Your task to perform on an android device: open app "Google Keep" (install if not already installed) Image 0: 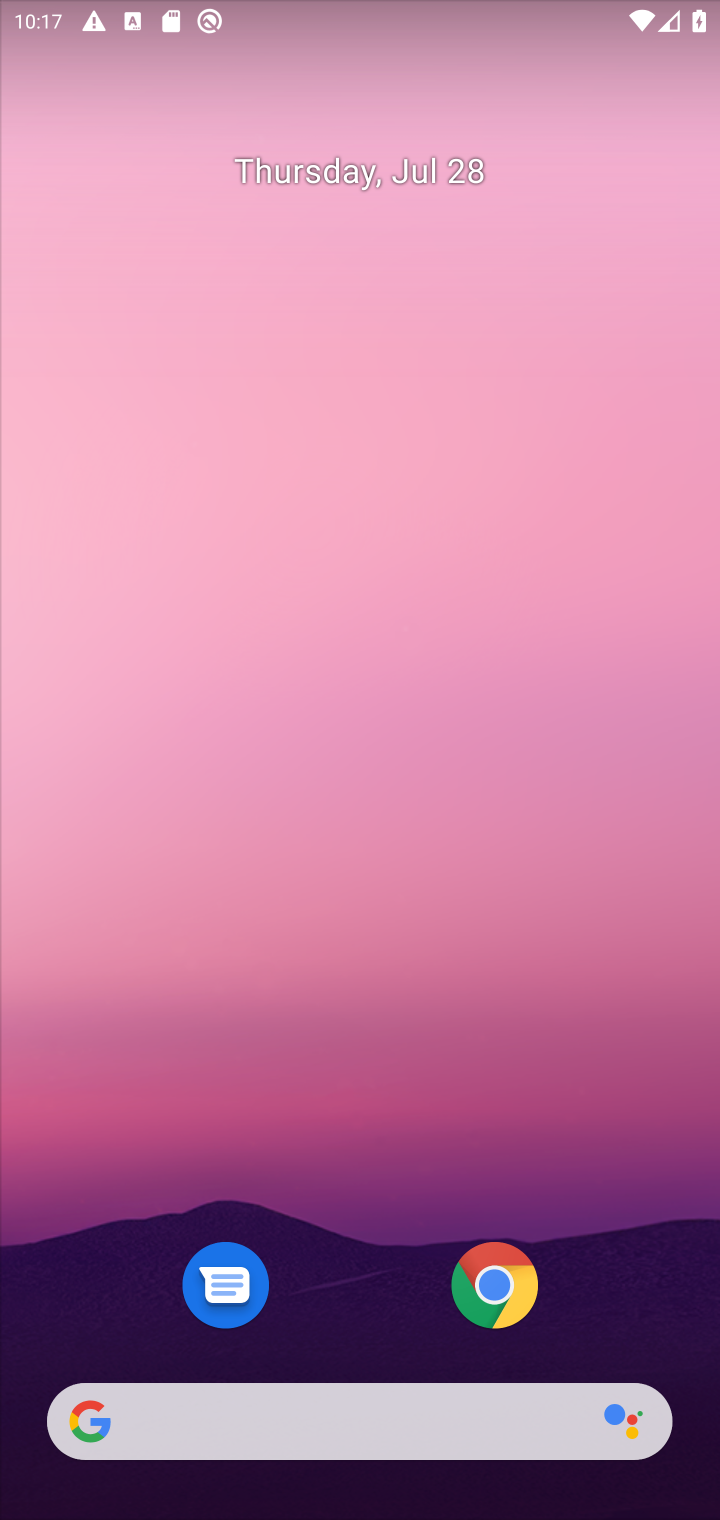
Step 0: drag from (273, 1424) to (453, 332)
Your task to perform on an android device: open app "Google Keep" (install if not already installed) Image 1: 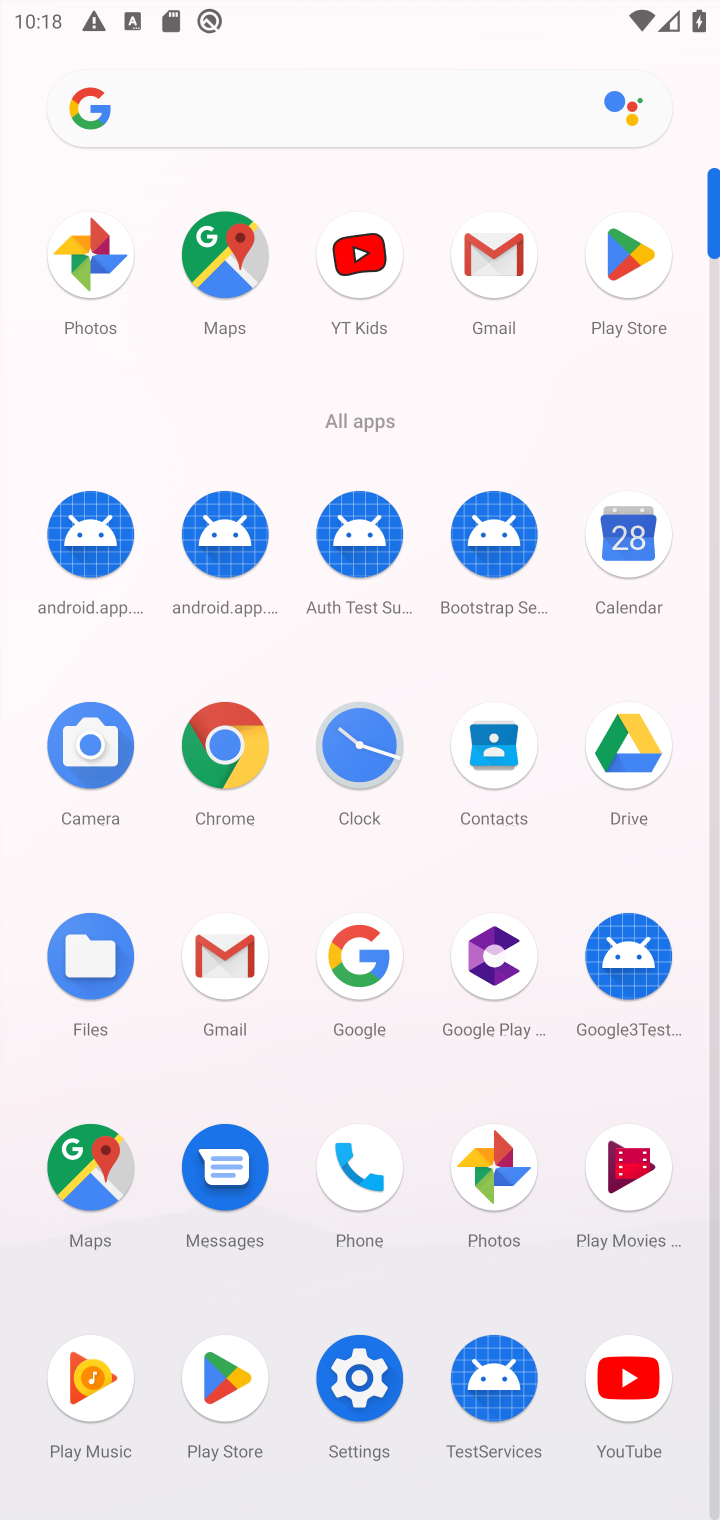
Step 1: click (631, 258)
Your task to perform on an android device: open app "Google Keep" (install if not already installed) Image 2: 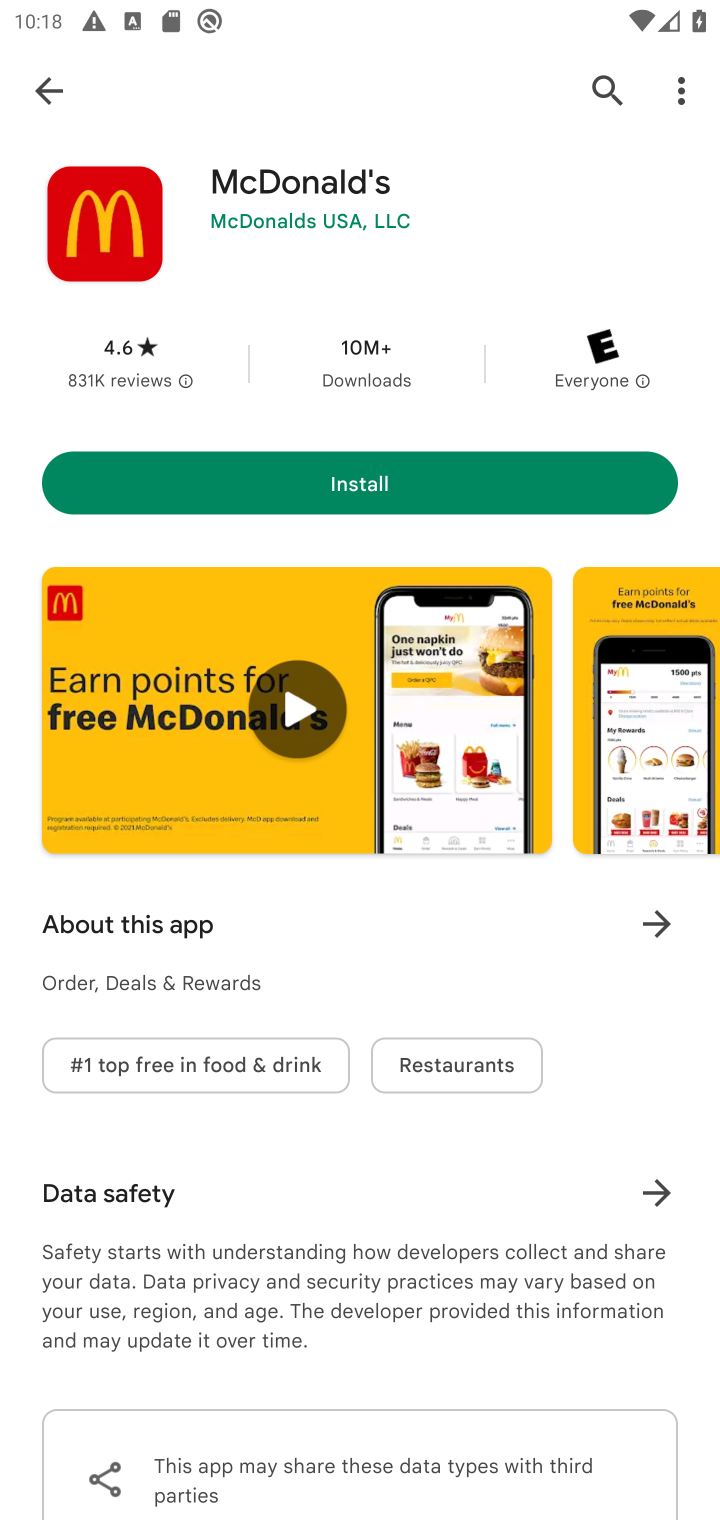
Step 2: click (602, 91)
Your task to perform on an android device: open app "Google Keep" (install if not already installed) Image 3: 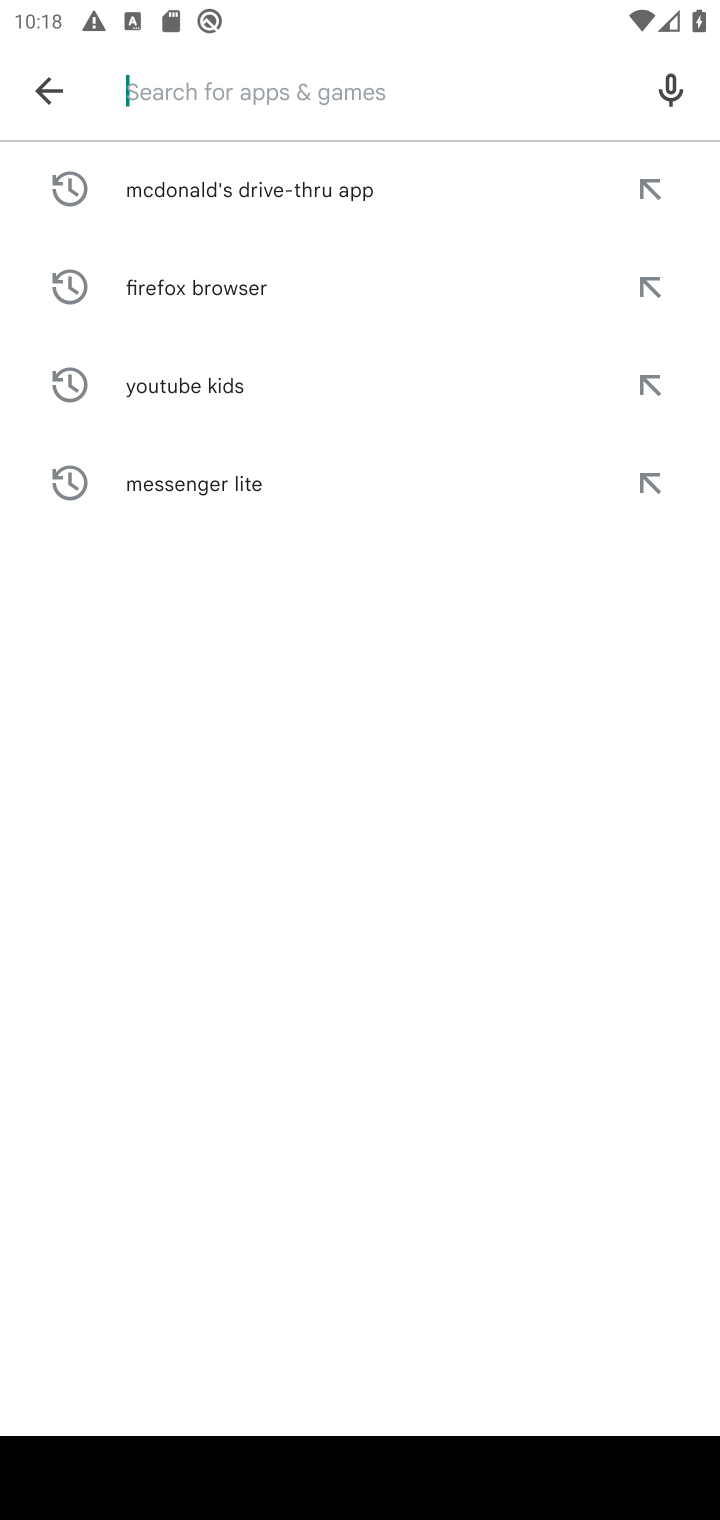
Step 3: type "Google Keep"
Your task to perform on an android device: open app "Google Keep" (install if not already installed) Image 4: 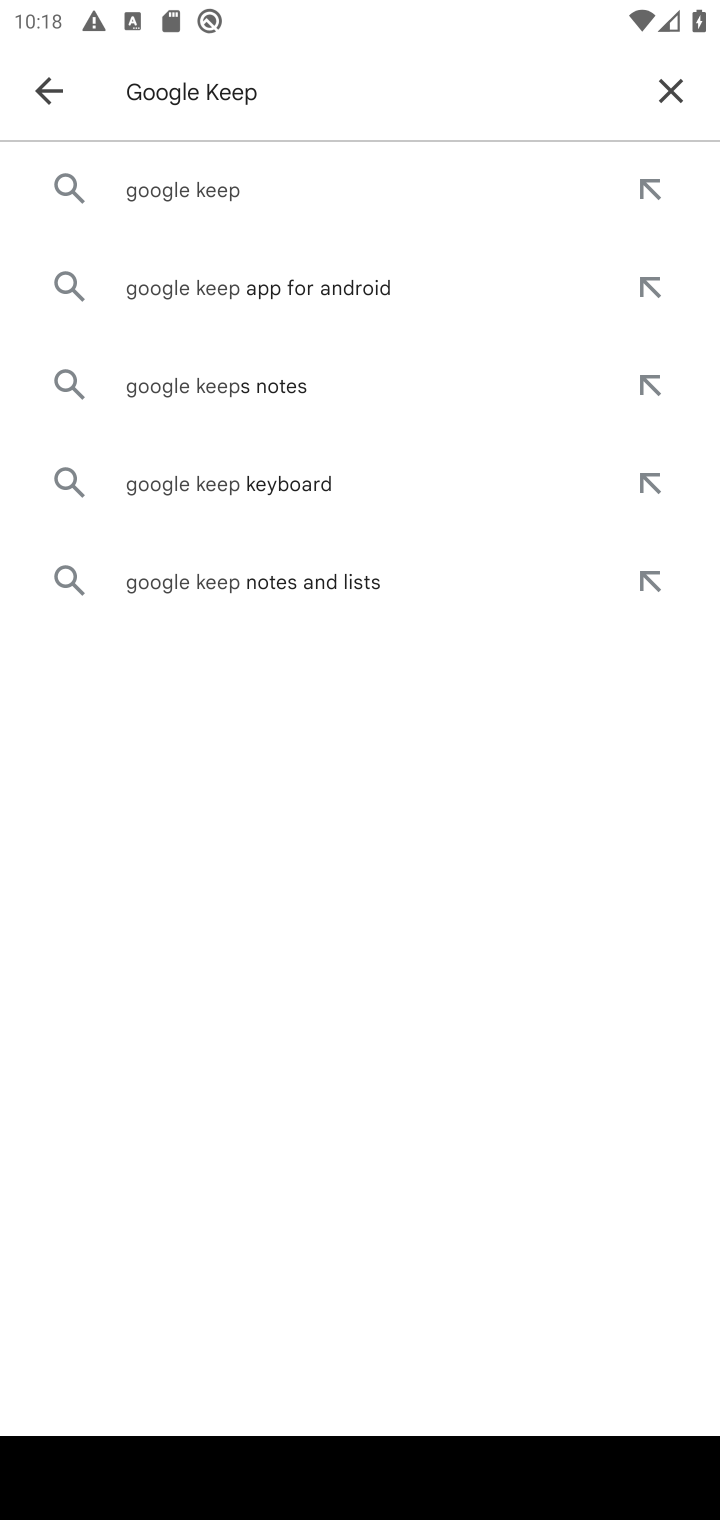
Step 4: click (231, 204)
Your task to perform on an android device: open app "Google Keep" (install if not already installed) Image 5: 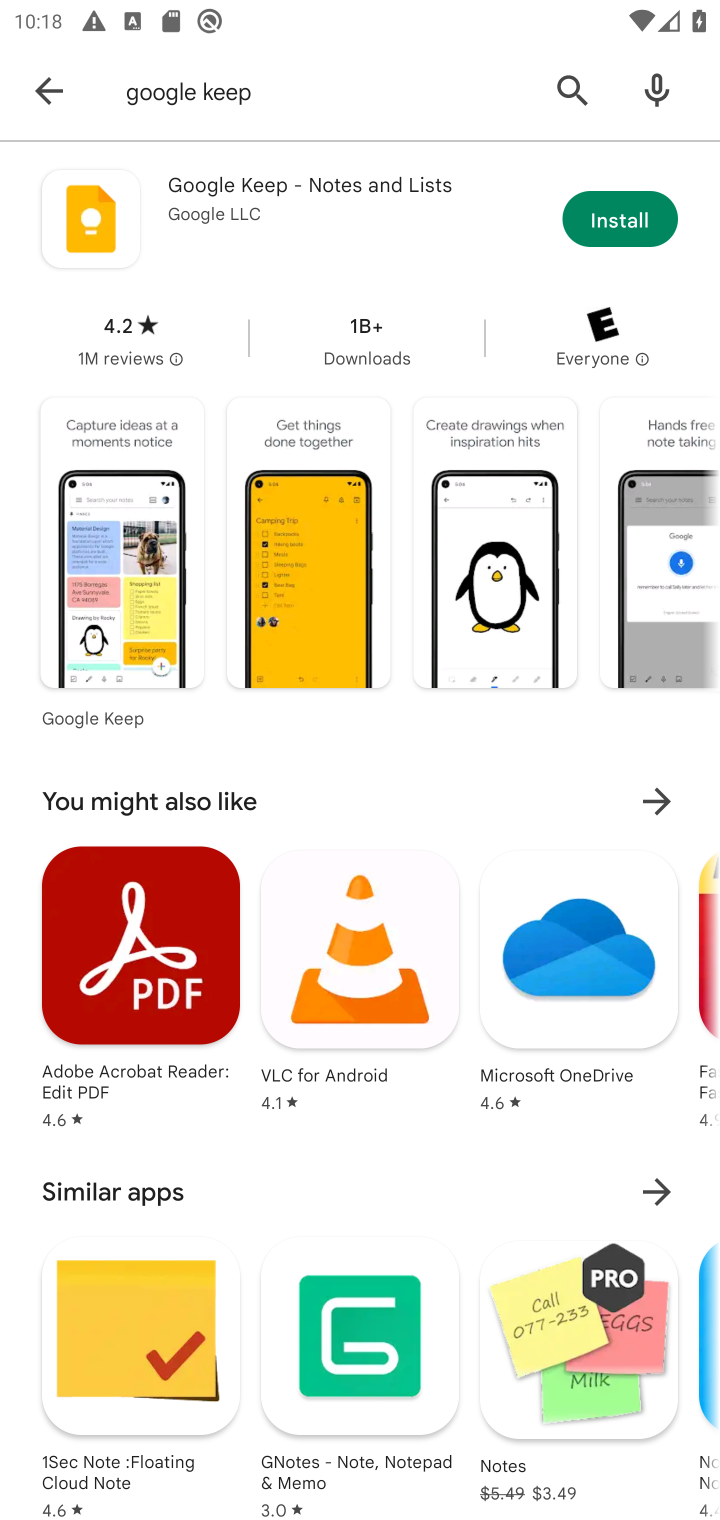
Step 5: click (636, 221)
Your task to perform on an android device: open app "Google Keep" (install if not already installed) Image 6: 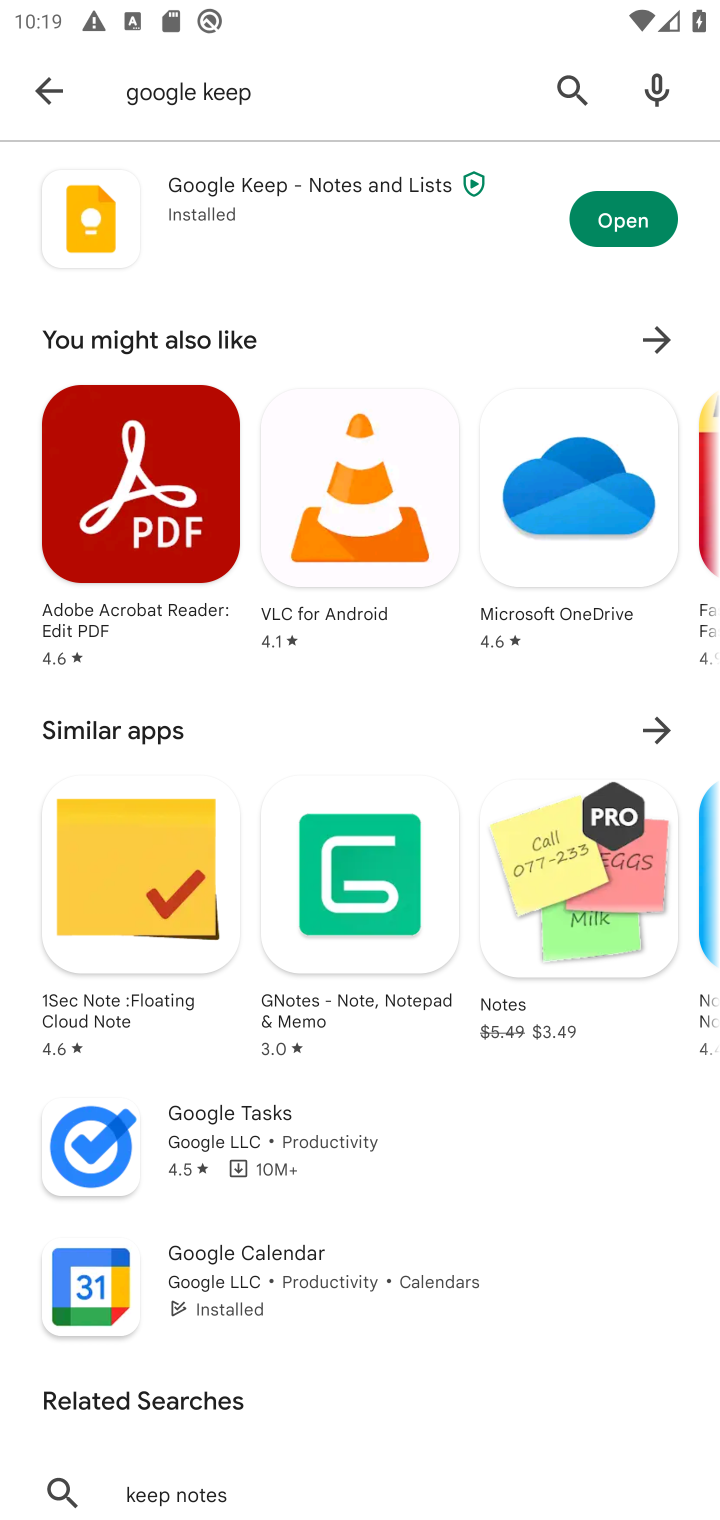
Step 6: click (631, 219)
Your task to perform on an android device: open app "Google Keep" (install if not already installed) Image 7: 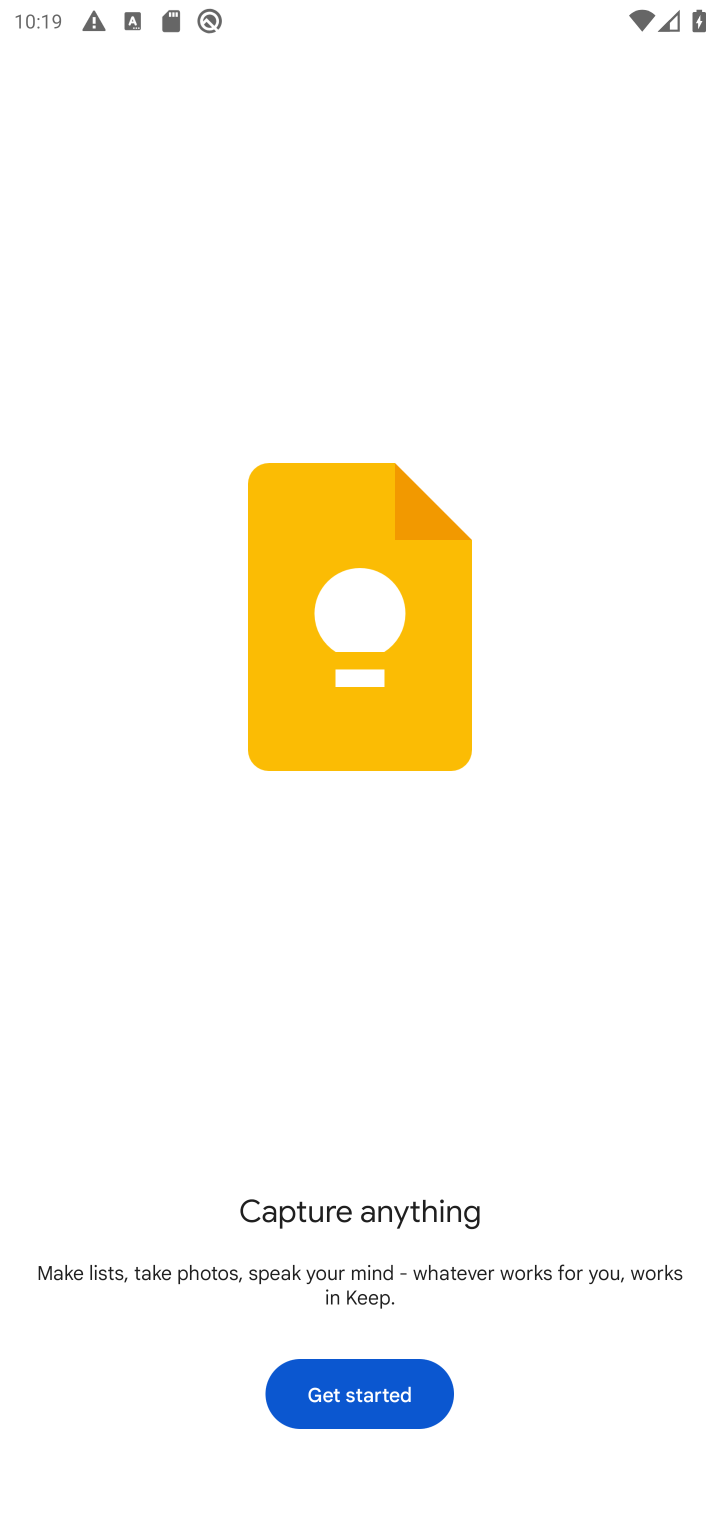
Step 7: task complete